Your task to perform on an android device: empty trash in the gmail app Image 0: 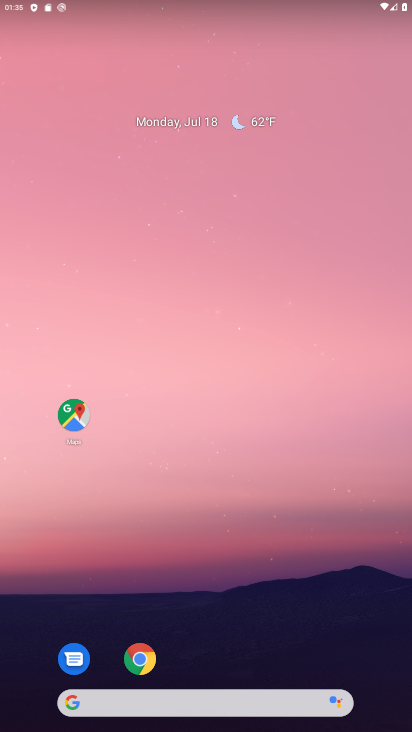
Step 0: drag from (255, 491) to (231, 129)
Your task to perform on an android device: empty trash in the gmail app Image 1: 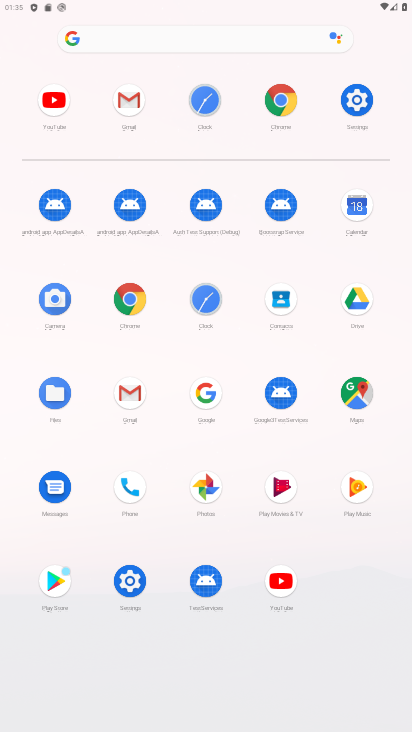
Step 1: click (136, 104)
Your task to perform on an android device: empty trash in the gmail app Image 2: 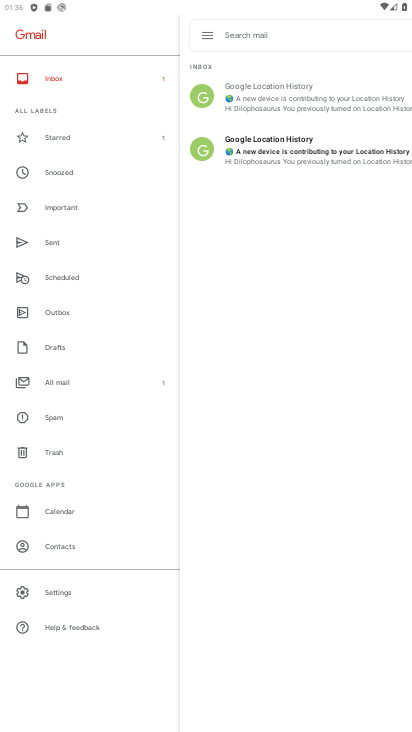
Step 2: click (61, 450)
Your task to perform on an android device: empty trash in the gmail app Image 3: 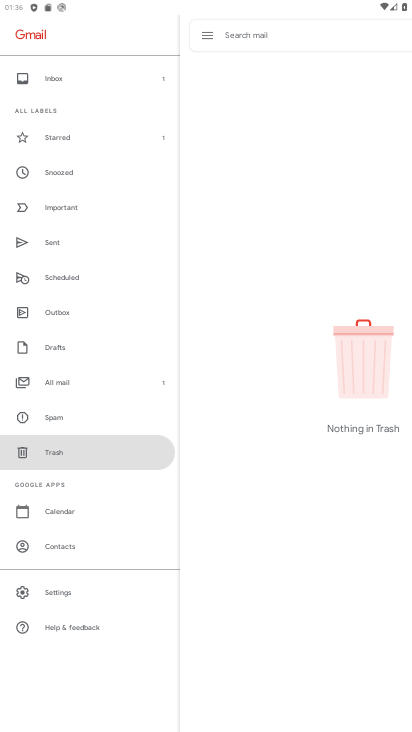
Step 3: task complete